Your task to perform on an android device: Open Maps and search for coffee Image 0: 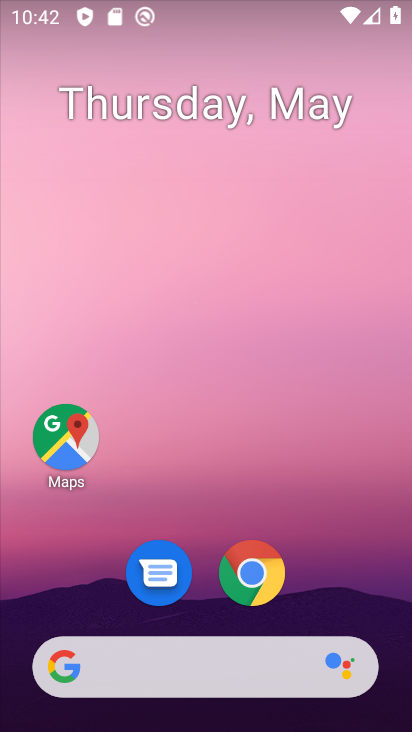
Step 0: click (70, 423)
Your task to perform on an android device: Open Maps and search for coffee Image 1: 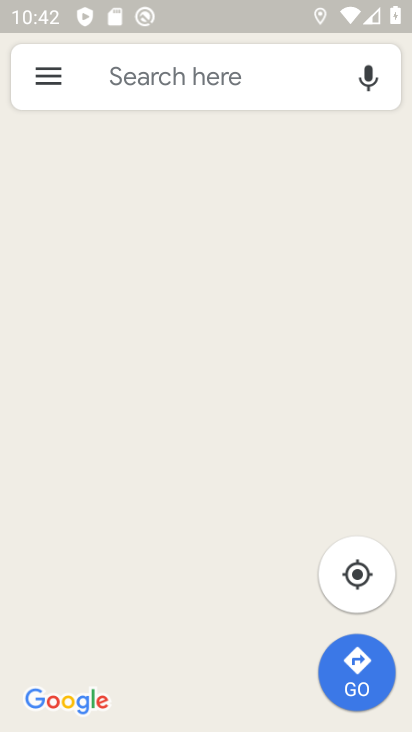
Step 1: click (232, 84)
Your task to perform on an android device: Open Maps and search for coffee Image 2: 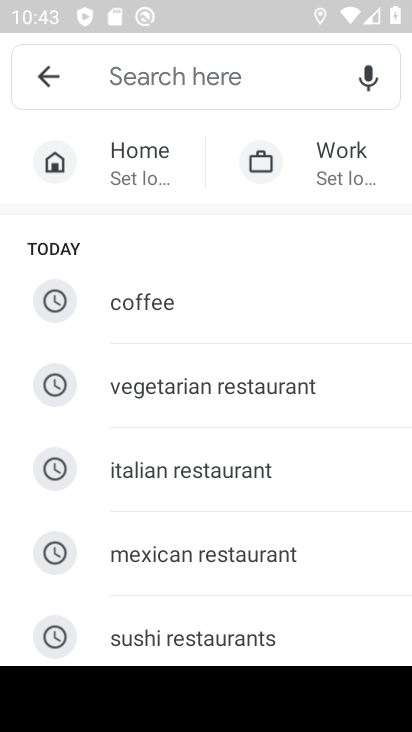
Step 2: click (179, 305)
Your task to perform on an android device: Open Maps and search for coffee Image 3: 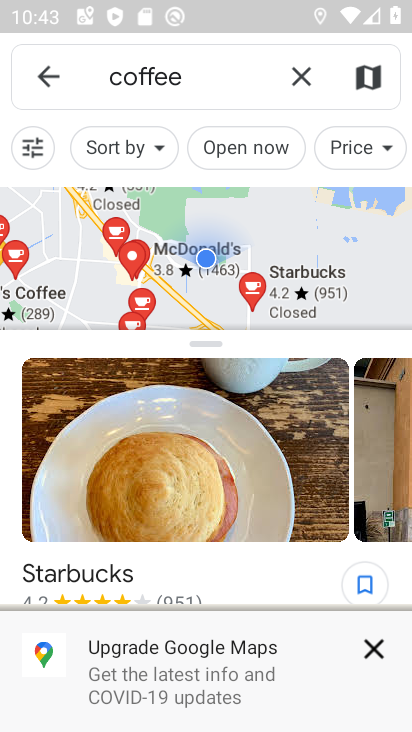
Step 3: task complete